Your task to perform on an android device: change the clock display to analog Image 0: 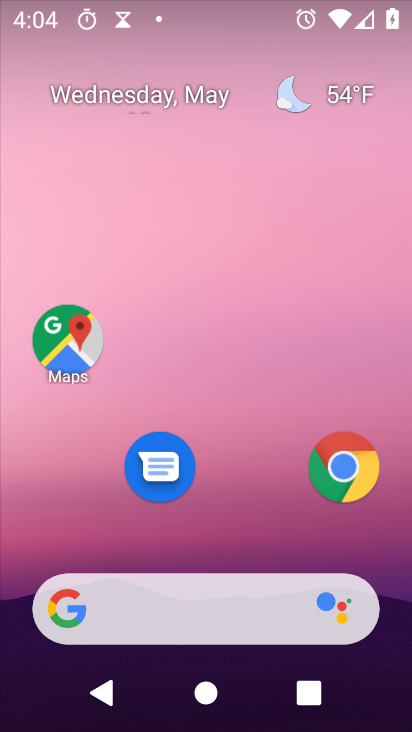
Step 0: drag from (257, 548) to (258, 238)
Your task to perform on an android device: change the clock display to analog Image 1: 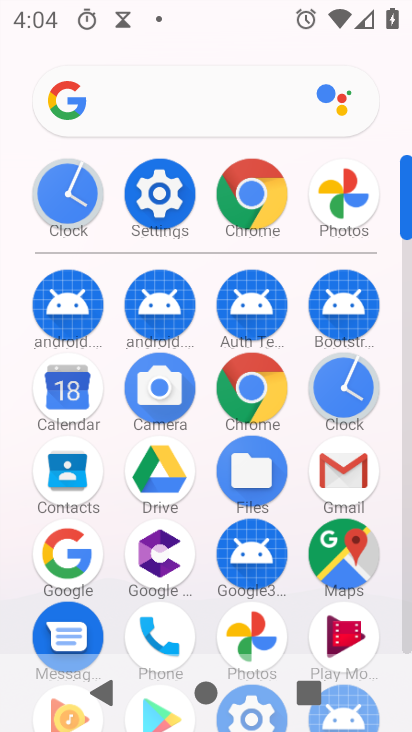
Step 1: click (47, 206)
Your task to perform on an android device: change the clock display to analog Image 2: 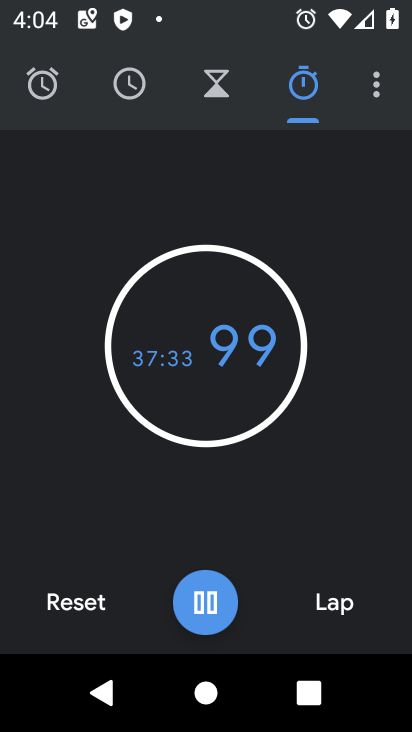
Step 2: click (389, 101)
Your task to perform on an android device: change the clock display to analog Image 3: 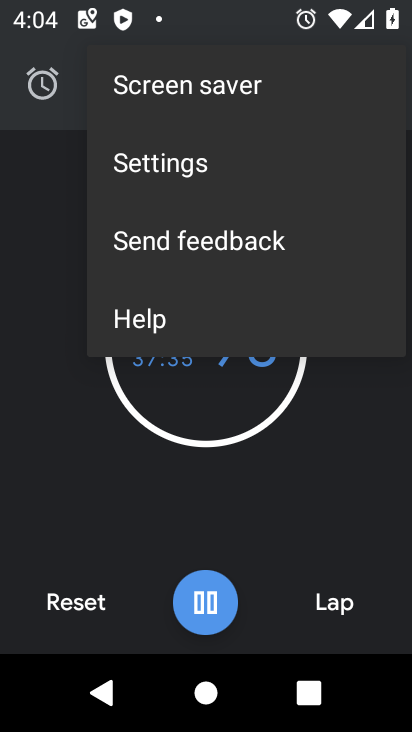
Step 3: click (293, 189)
Your task to perform on an android device: change the clock display to analog Image 4: 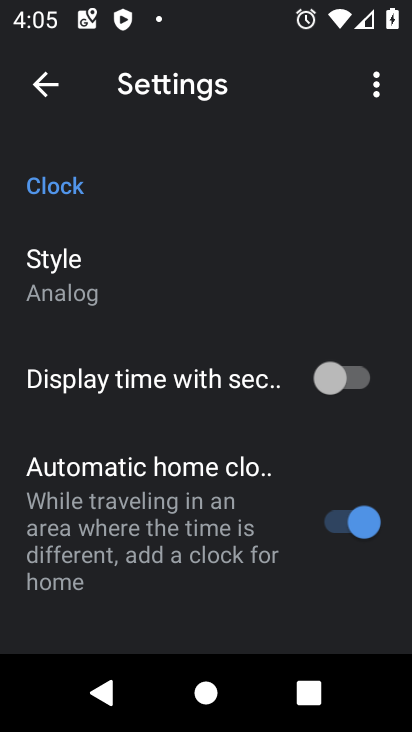
Step 4: task complete